Your task to perform on an android device: toggle notifications settings in the gmail app Image 0: 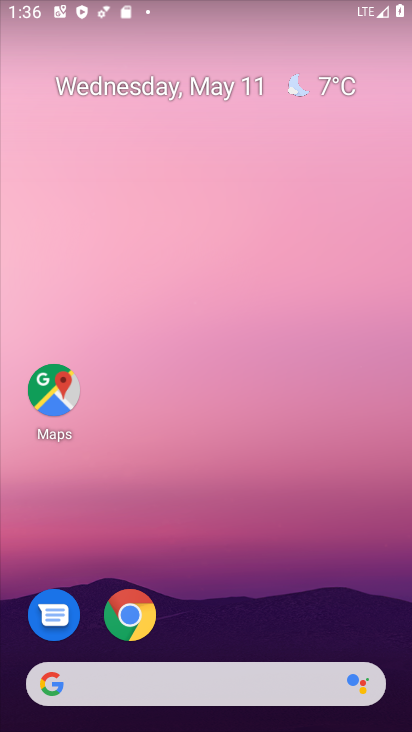
Step 0: drag from (248, 567) to (277, 131)
Your task to perform on an android device: toggle notifications settings in the gmail app Image 1: 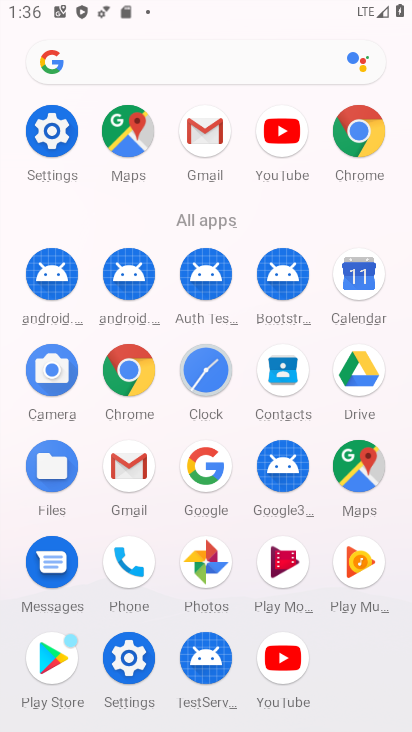
Step 1: click (215, 141)
Your task to perform on an android device: toggle notifications settings in the gmail app Image 2: 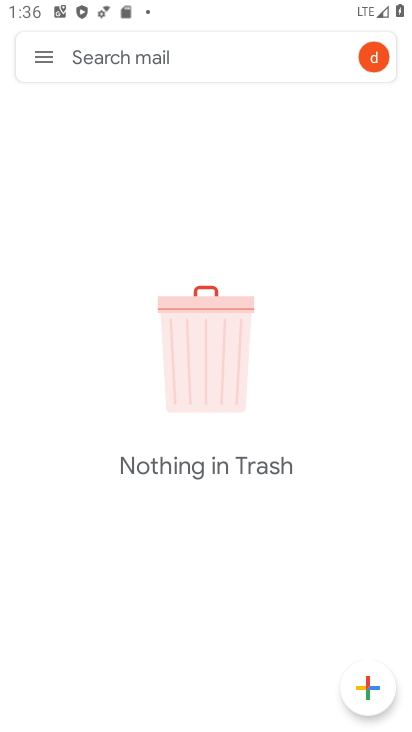
Step 2: click (50, 52)
Your task to perform on an android device: toggle notifications settings in the gmail app Image 3: 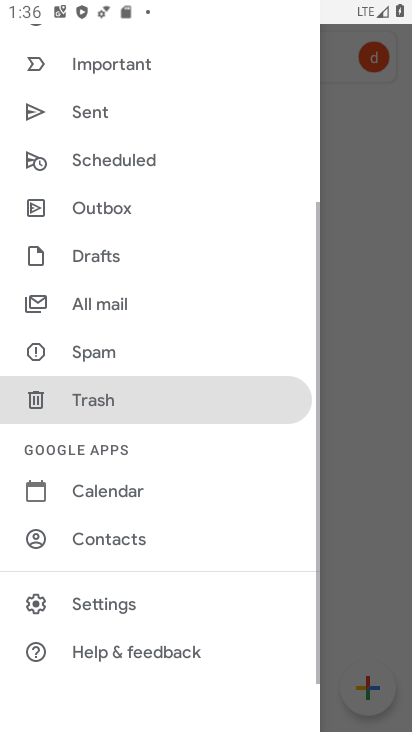
Step 3: click (135, 591)
Your task to perform on an android device: toggle notifications settings in the gmail app Image 4: 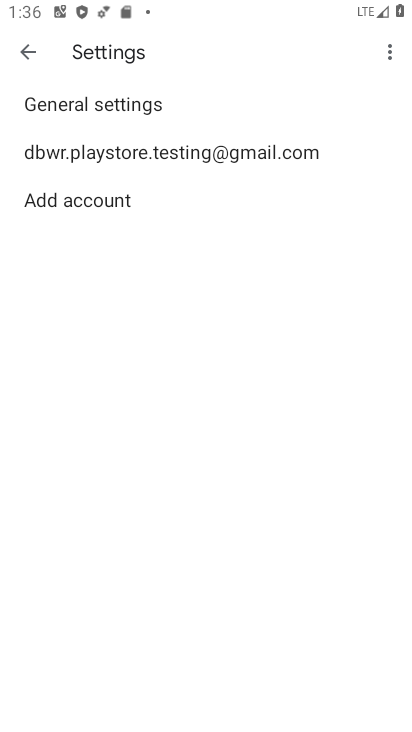
Step 4: click (219, 148)
Your task to perform on an android device: toggle notifications settings in the gmail app Image 5: 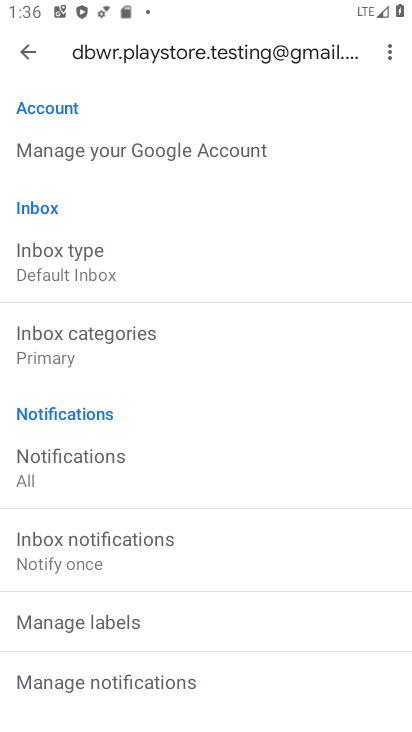
Step 5: drag from (164, 575) to (232, 303)
Your task to perform on an android device: toggle notifications settings in the gmail app Image 6: 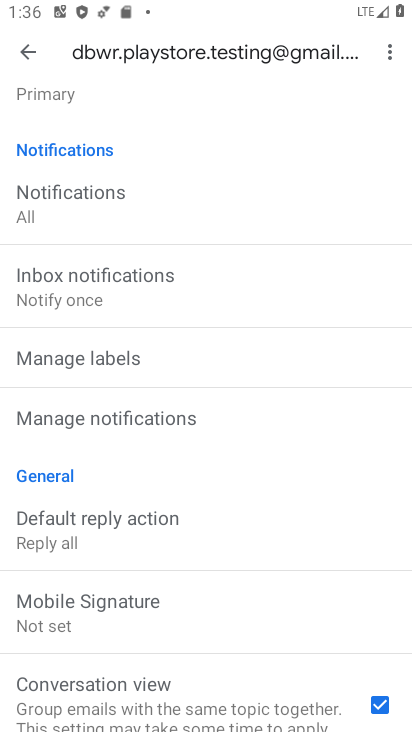
Step 6: click (85, 415)
Your task to perform on an android device: toggle notifications settings in the gmail app Image 7: 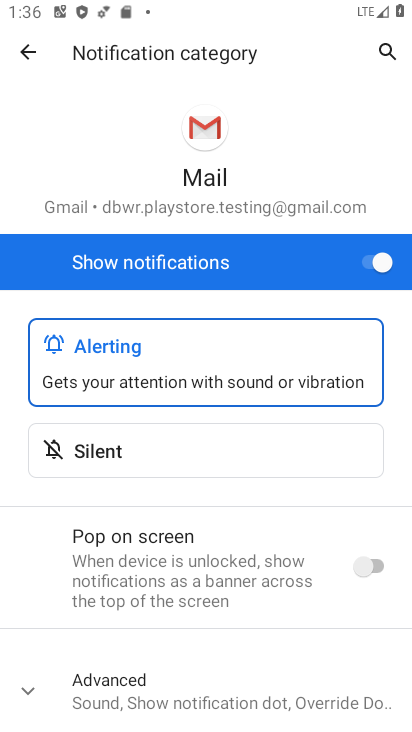
Step 7: click (351, 250)
Your task to perform on an android device: toggle notifications settings in the gmail app Image 8: 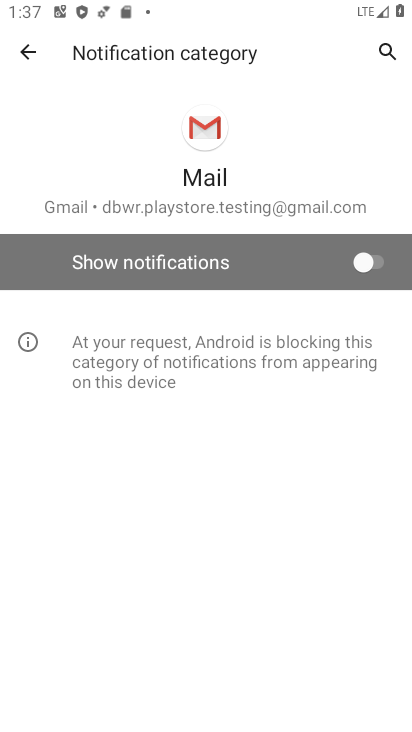
Step 8: task complete